Your task to perform on an android device: Go to Amazon Image 0: 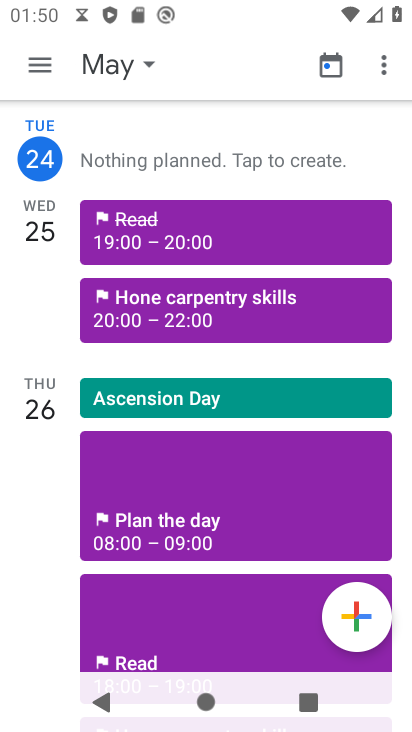
Step 0: press home button
Your task to perform on an android device: Go to Amazon Image 1: 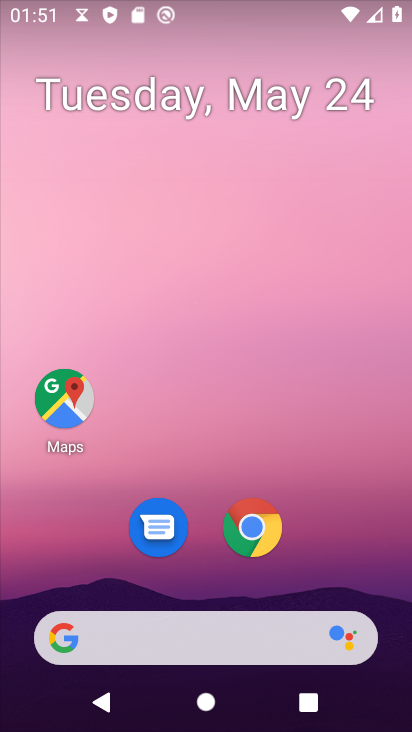
Step 1: click (253, 523)
Your task to perform on an android device: Go to Amazon Image 2: 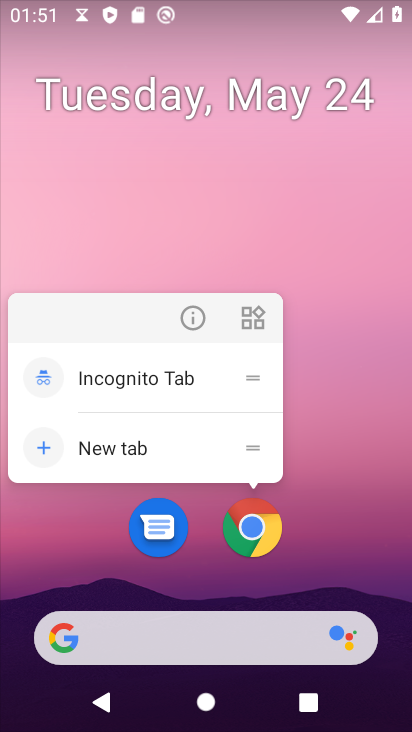
Step 2: click (255, 533)
Your task to perform on an android device: Go to Amazon Image 3: 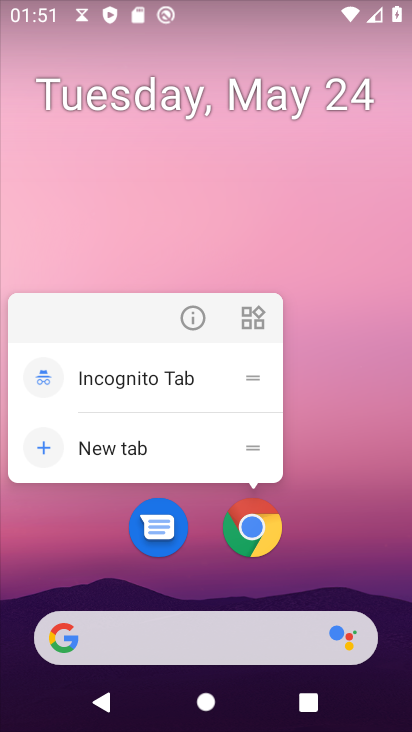
Step 3: click (266, 524)
Your task to perform on an android device: Go to Amazon Image 4: 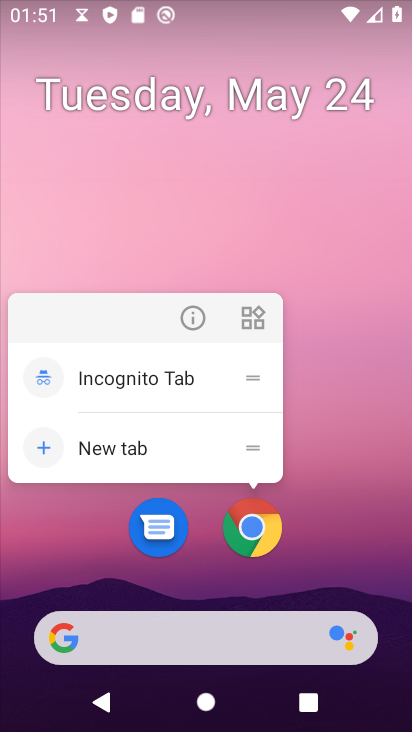
Step 4: click (238, 540)
Your task to perform on an android device: Go to Amazon Image 5: 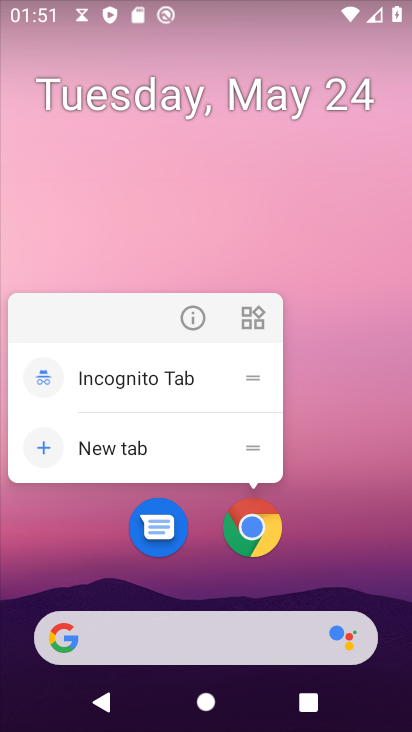
Step 5: click (249, 530)
Your task to perform on an android device: Go to Amazon Image 6: 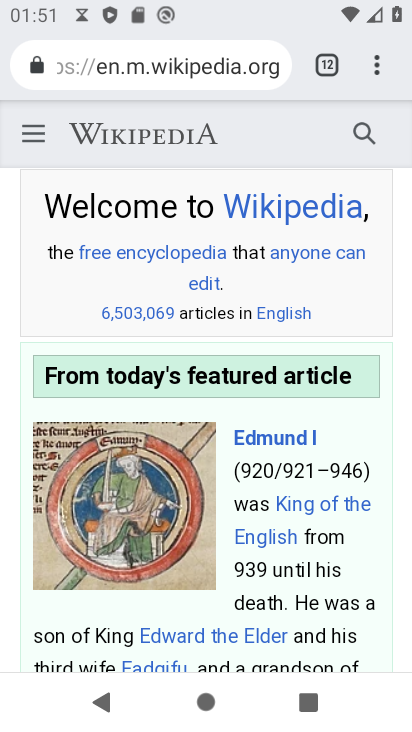
Step 6: drag from (380, 68) to (289, 123)
Your task to perform on an android device: Go to Amazon Image 7: 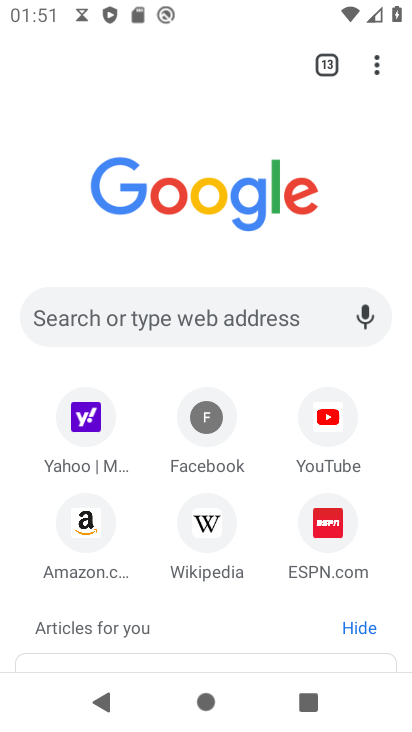
Step 7: click (76, 527)
Your task to perform on an android device: Go to Amazon Image 8: 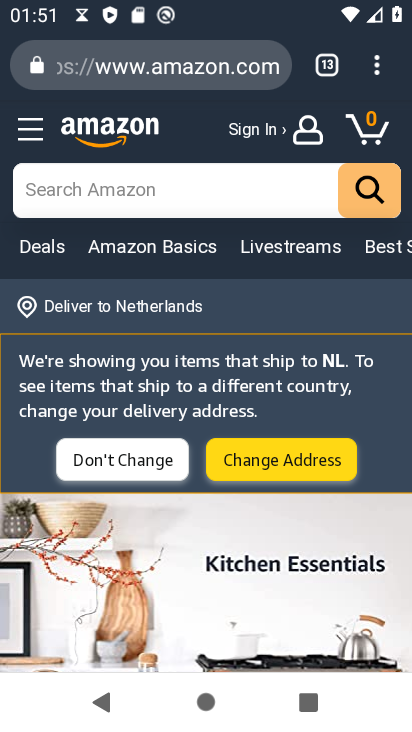
Step 8: task complete